Your task to perform on an android device: delete the emails in spam in the gmail app Image 0: 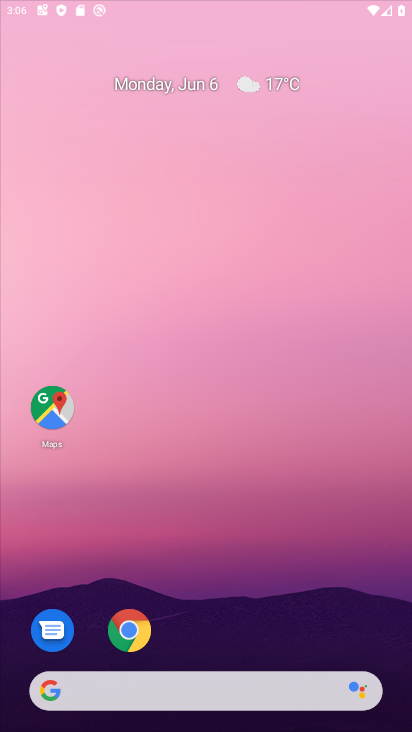
Step 0: press back button
Your task to perform on an android device: delete the emails in spam in the gmail app Image 1: 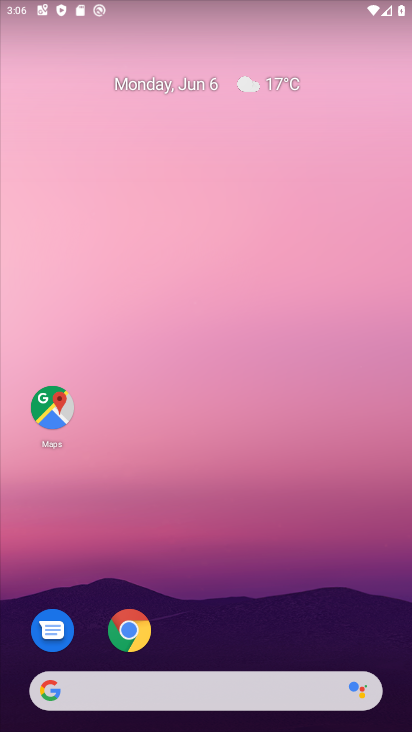
Step 1: drag from (206, 627) to (234, 100)
Your task to perform on an android device: delete the emails in spam in the gmail app Image 2: 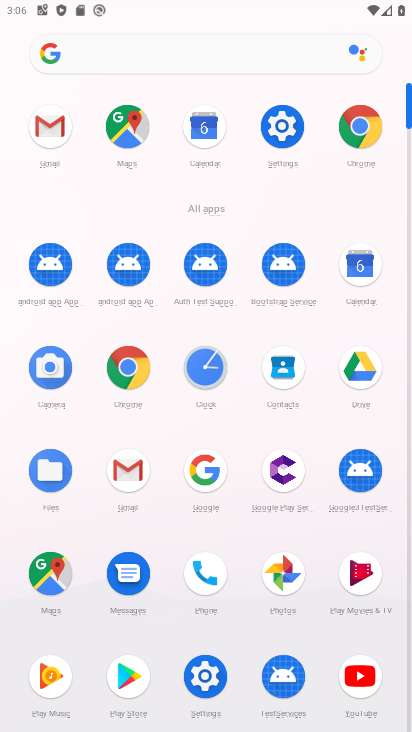
Step 2: click (51, 120)
Your task to perform on an android device: delete the emails in spam in the gmail app Image 3: 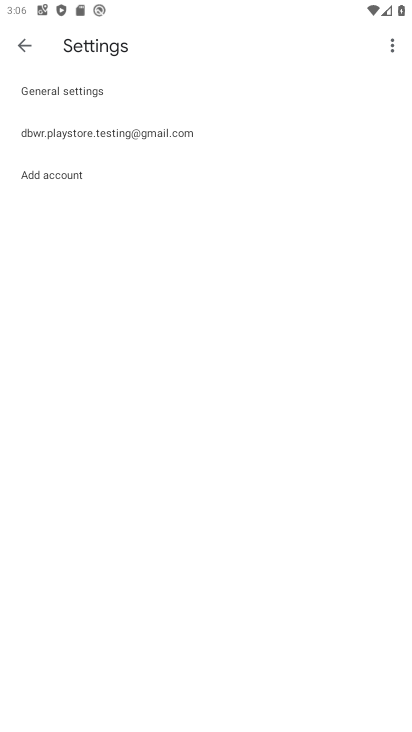
Step 3: click (12, 41)
Your task to perform on an android device: delete the emails in spam in the gmail app Image 4: 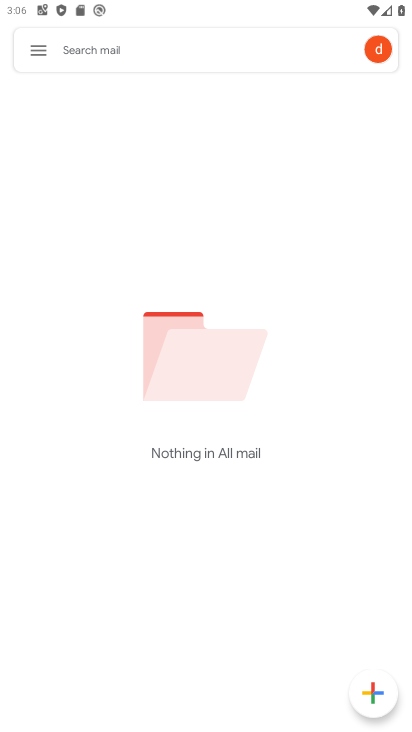
Step 4: click (32, 45)
Your task to perform on an android device: delete the emails in spam in the gmail app Image 5: 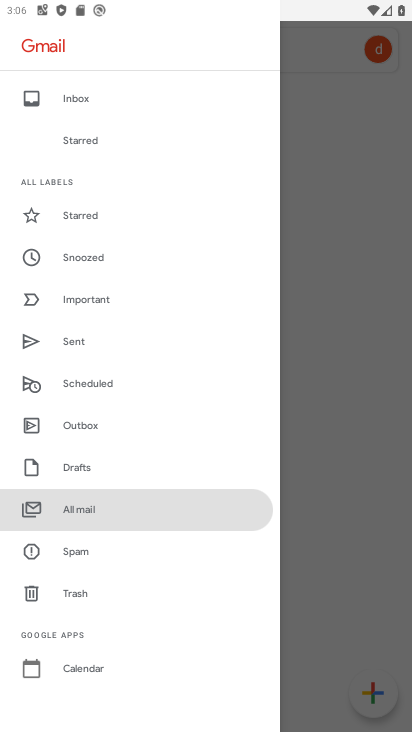
Step 5: click (96, 551)
Your task to perform on an android device: delete the emails in spam in the gmail app Image 6: 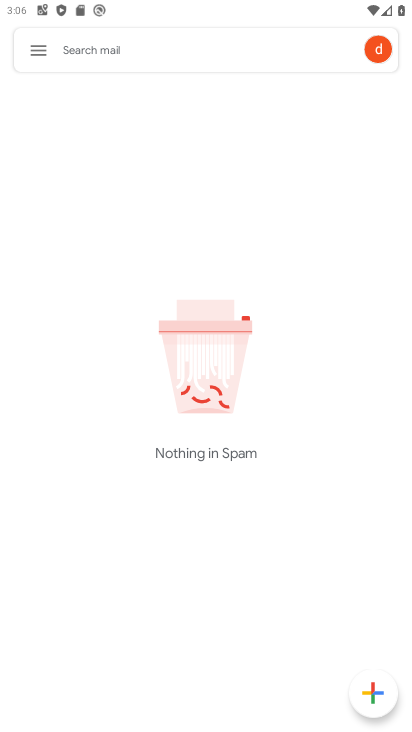
Step 6: task complete